Your task to perform on an android device: toggle notifications settings in the gmail app Image 0: 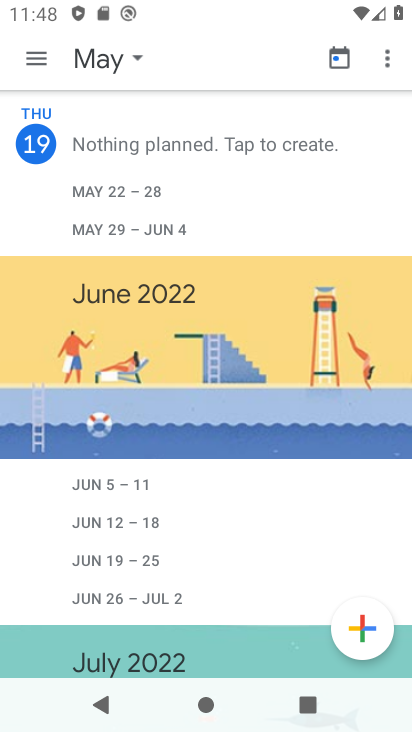
Step 0: press home button
Your task to perform on an android device: toggle notifications settings in the gmail app Image 1: 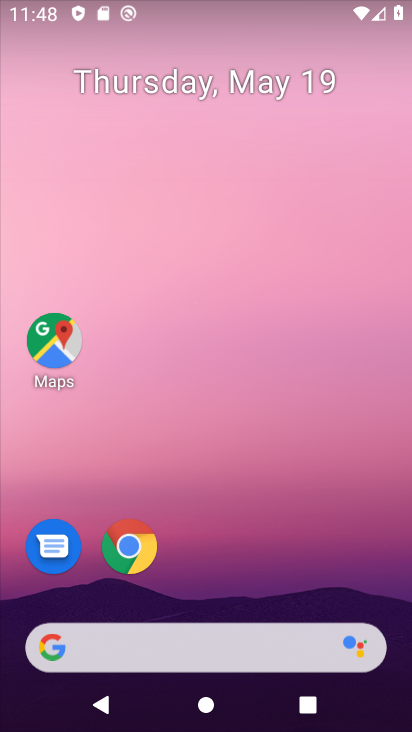
Step 1: drag from (290, 521) to (258, 57)
Your task to perform on an android device: toggle notifications settings in the gmail app Image 2: 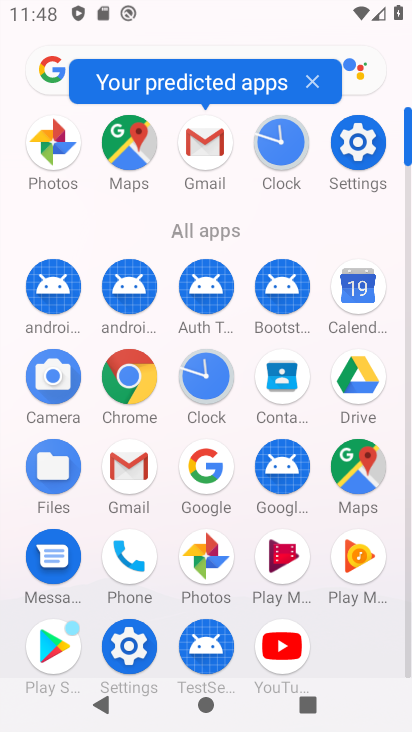
Step 2: click (210, 149)
Your task to perform on an android device: toggle notifications settings in the gmail app Image 3: 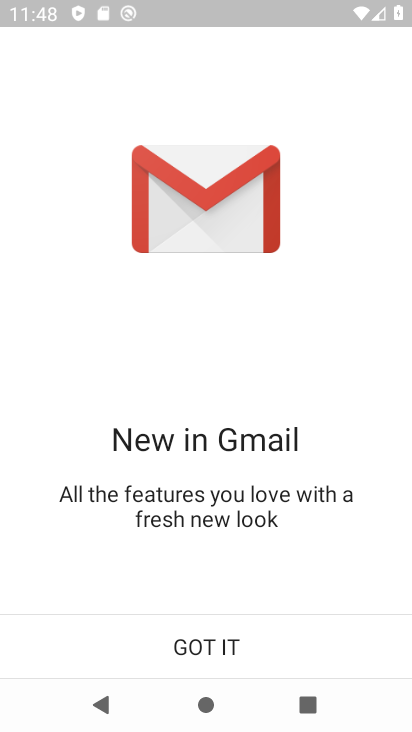
Step 3: click (246, 658)
Your task to perform on an android device: toggle notifications settings in the gmail app Image 4: 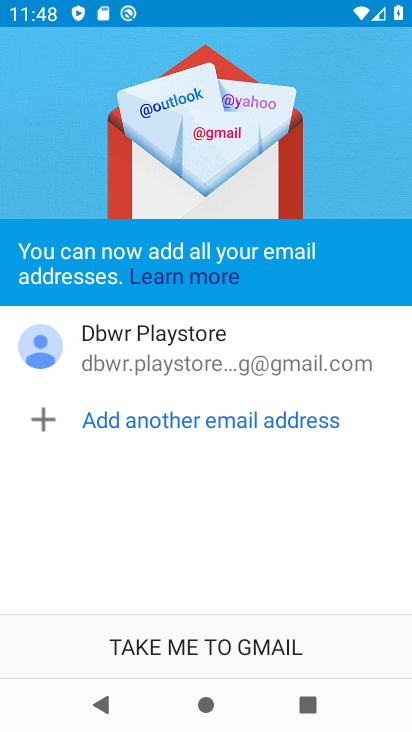
Step 4: click (213, 656)
Your task to perform on an android device: toggle notifications settings in the gmail app Image 5: 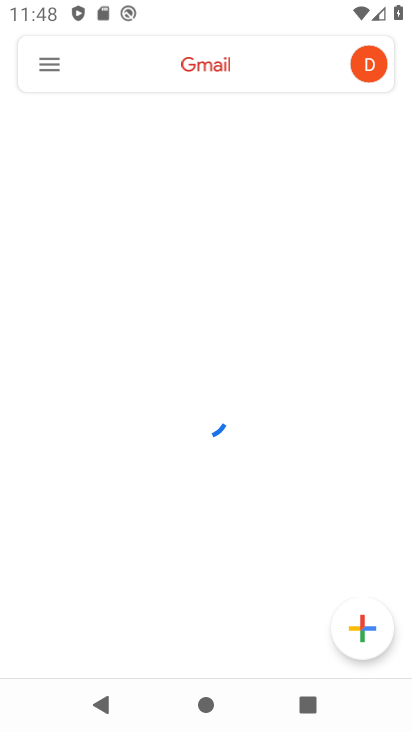
Step 5: click (50, 63)
Your task to perform on an android device: toggle notifications settings in the gmail app Image 6: 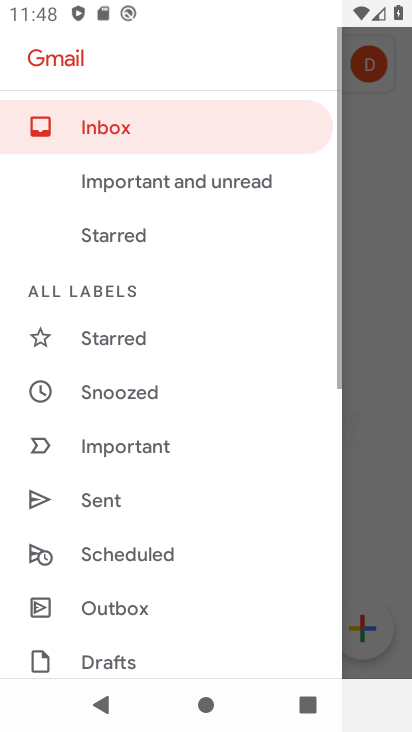
Step 6: click (105, 298)
Your task to perform on an android device: toggle notifications settings in the gmail app Image 7: 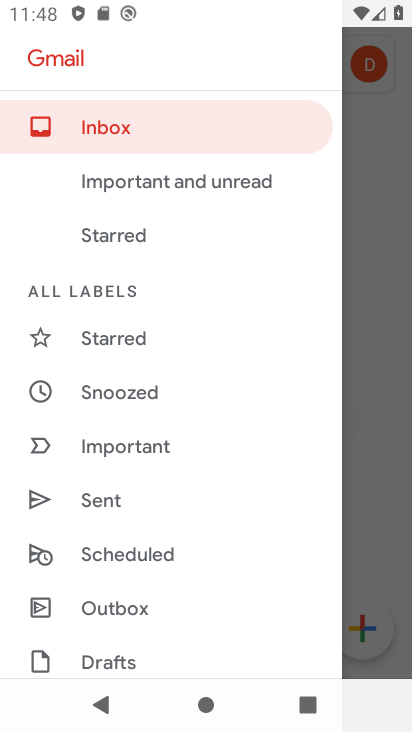
Step 7: drag from (256, 534) to (273, 51)
Your task to perform on an android device: toggle notifications settings in the gmail app Image 8: 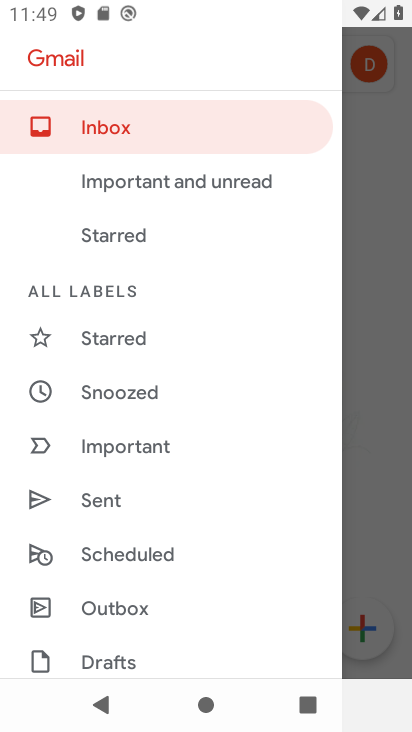
Step 8: drag from (184, 594) to (253, 108)
Your task to perform on an android device: toggle notifications settings in the gmail app Image 9: 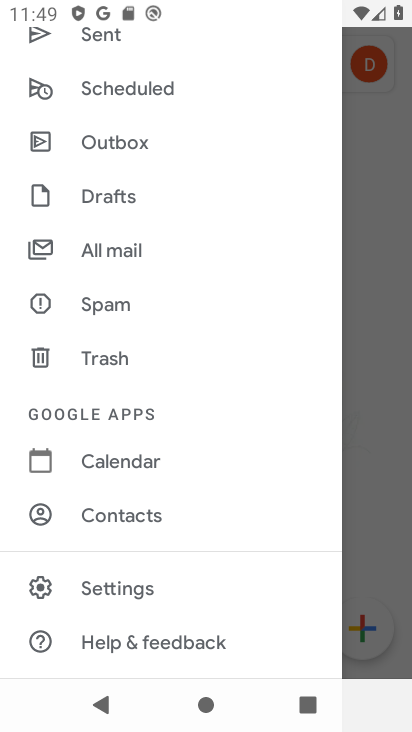
Step 9: click (136, 586)
Your task to perform on an android device: toggle notifications settings in the gmail app Image 10: 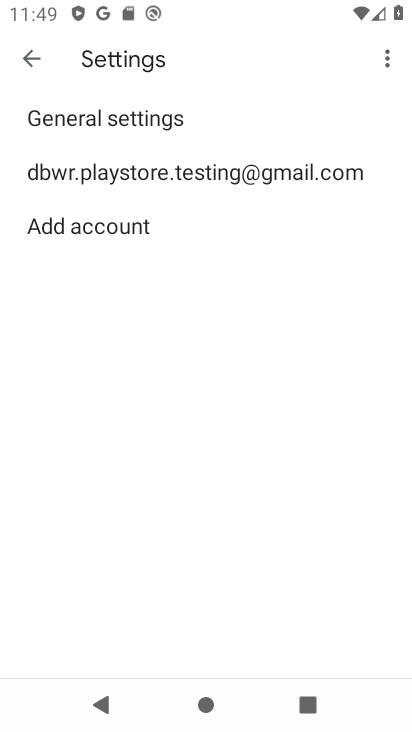
Step 10: click (193, 180)
Your task to perform on an android device: toggle notifications settings in the gmail app Image 11: 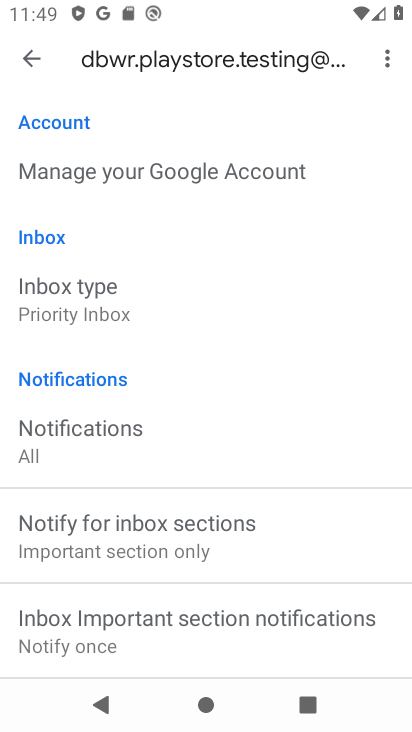
Step 11: drag from (214, 581) to (250, 68)
Your task to perform on an android device: toggle notifications settings in the gmail app Image 12: 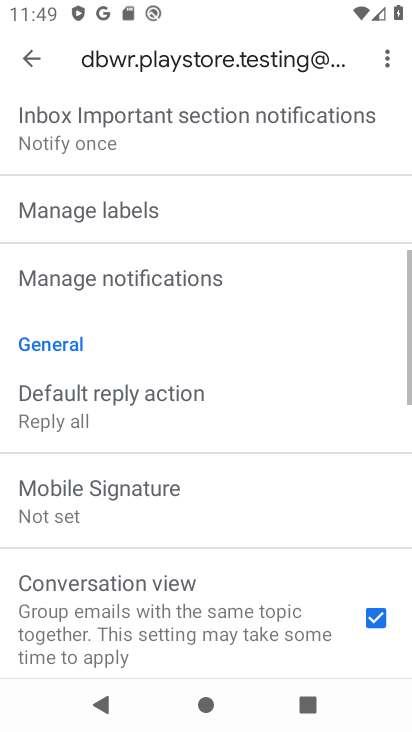
Step 12: click (251, 68)
Your task to perform on an android device: toggle notifications settings in the gmail app Image 13: 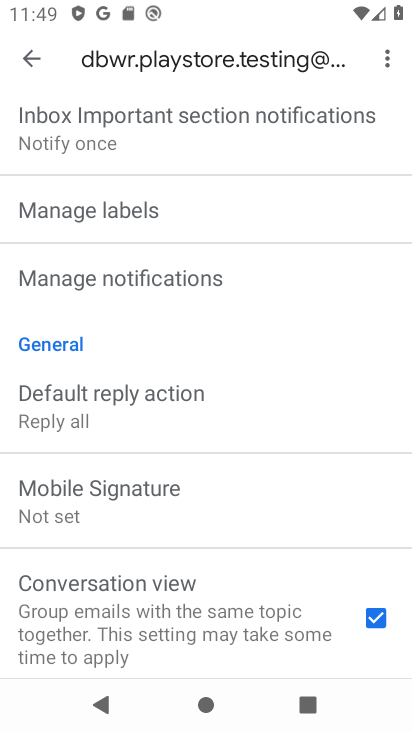
Step 13: click (176, 271)
Your task to perform on an android device: toggle notifications settings in the gmail app Image 14: 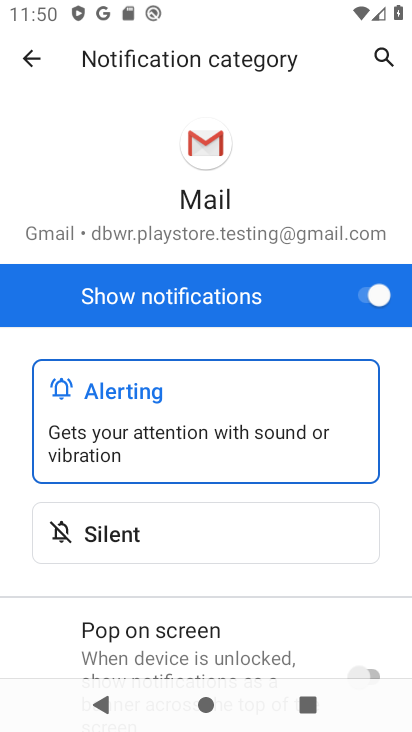
Step 14: click (383, 295)
Your task to perform on an android device: toggle notifications settings in the gmail app Image 15: 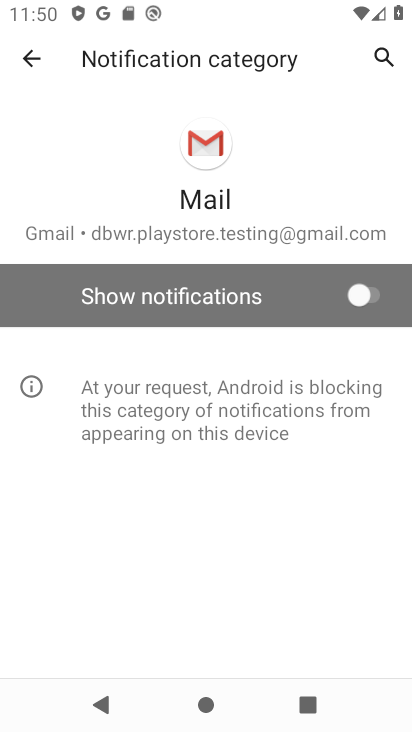
Step 15: task complete